Your task to perform on an android device: turn notification dots off Image 0: 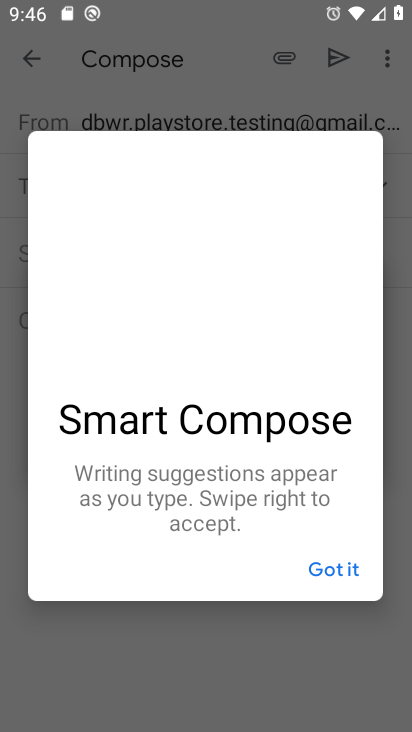
Step 0: press home button
Your task to perform on an android device: turn notification dots off Image 1: 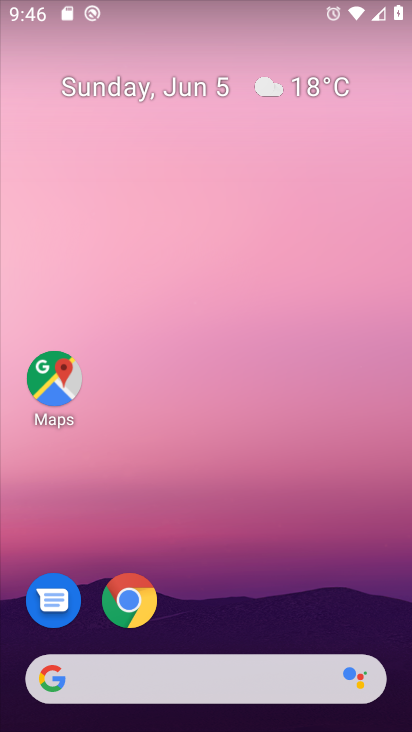
Step 1: drag from (248, 559) to (284, 19)
Your task to perform on an android device: turn notification dots off Image 2: 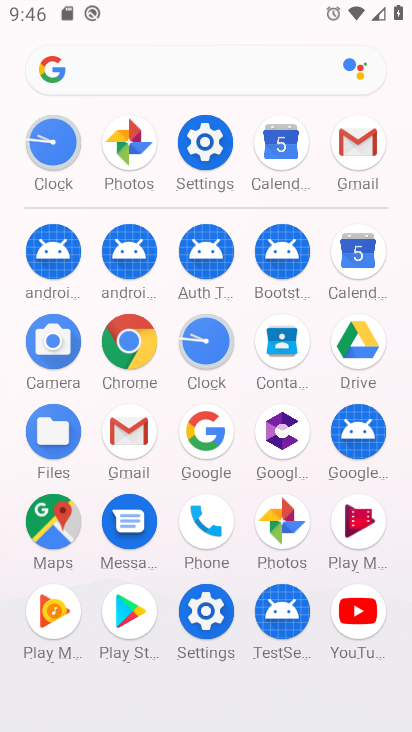
Step 2: click (203, 142)
Your task to perform on an android device: turn notification dots off Image 3: 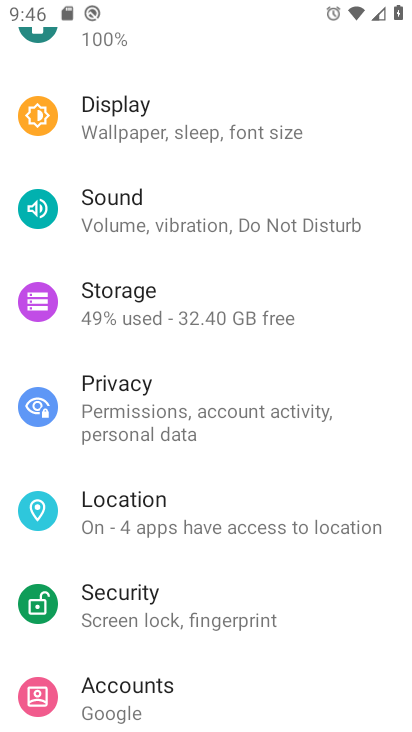
Step 3: drag from (228, 188) to (232, 582)
Your task to perform on an android device: turn notification dots off Image 4: 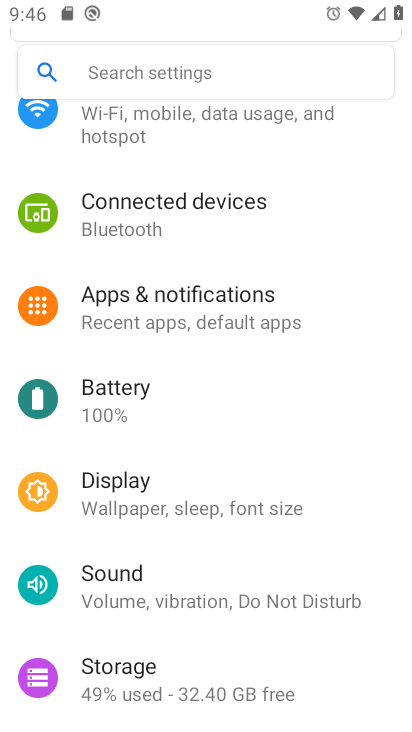
Step 4: click (202, 306)
Your task to perform on an android device: turn notification dots off Image 5: 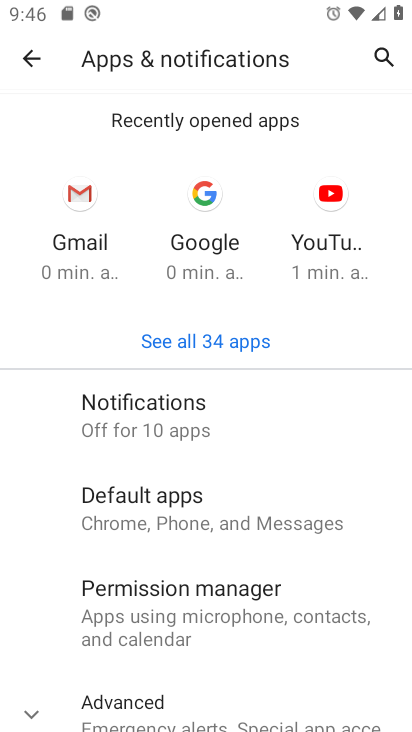
Step 5: click (192, 405)
Your task to perform on an android device: turn notification dots off Image 6: 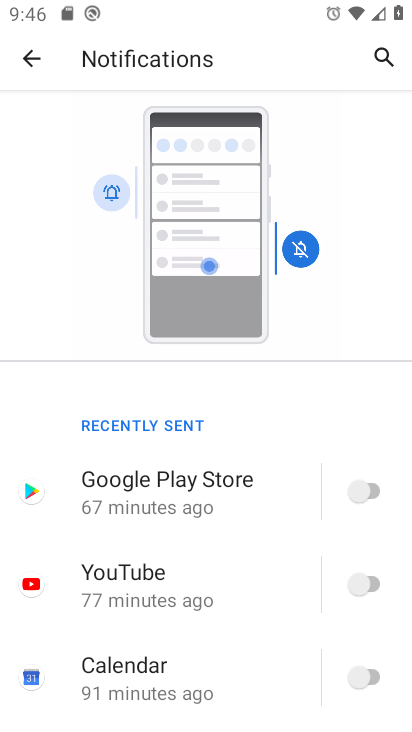
Step 6: drag from (211, 581) to (237, 85)
Your task to perform on an android device: turn notification dots off Image 7: 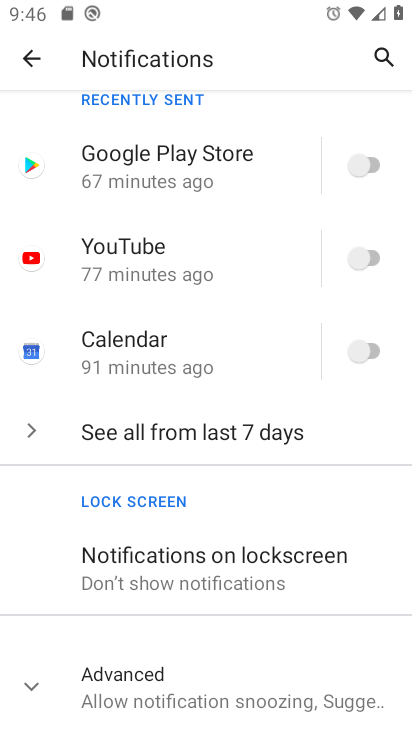
Step 7: click (27, 680)
Your task to perform on an android device: turn notification dots off Image 8: 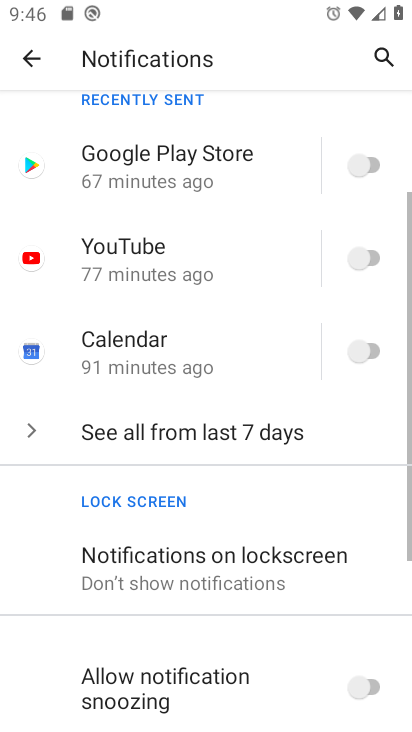
Step 8: drag from (155, 645) to (197, 240)
Your task to perform on an android device: turn notification dots off Image 9: 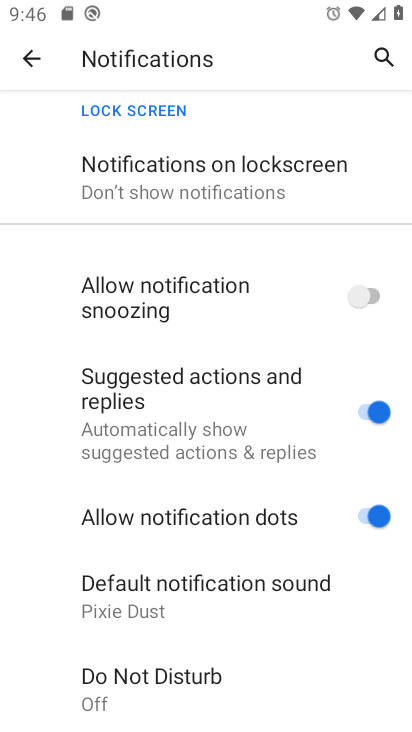
Step 9: click (366, 509)
Your task to perform on an android device: turn notification dots off Image 10: 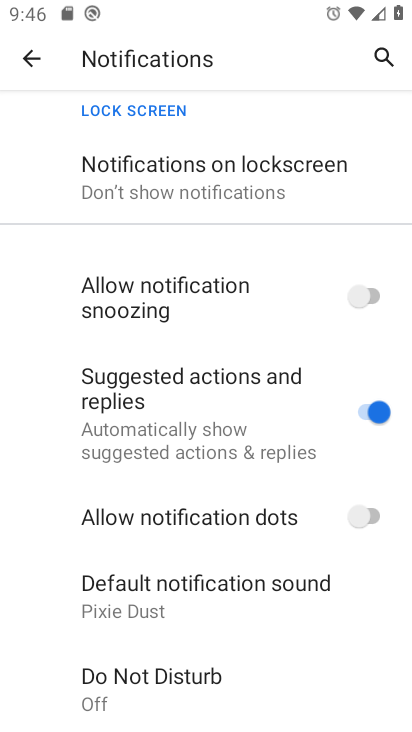
Step 10: task complete